Your task to perform on an android device: Turn on the flashlight Image 0: 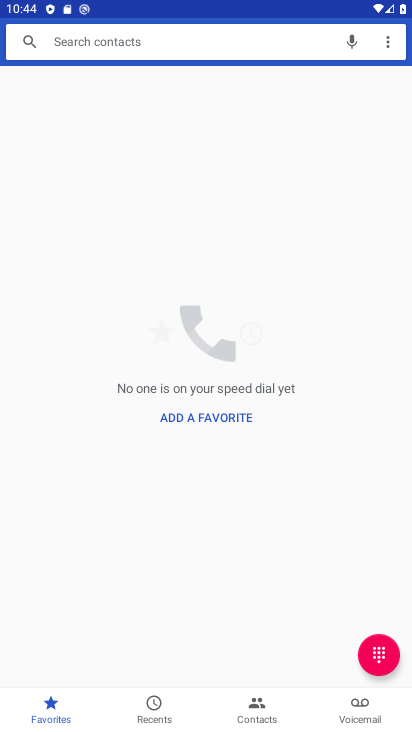
Step 0: press home button
Your task to perform on an android device: Turn on the flashlight Image 1: 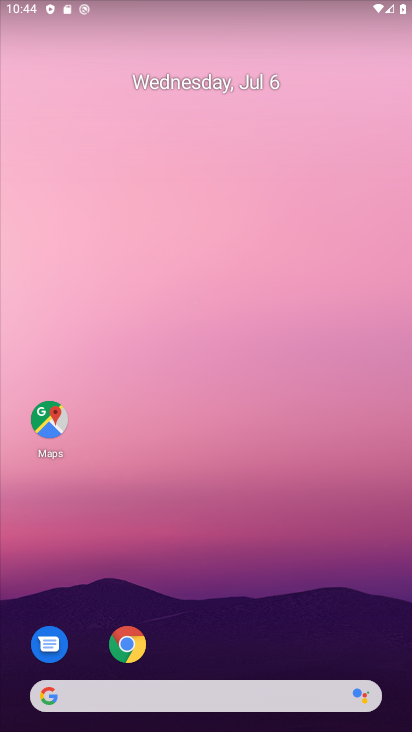
Step 1: drag from (294, 2) to (342, 468)
Your task to perform on an android device: Turn on the flashlight Image 2: 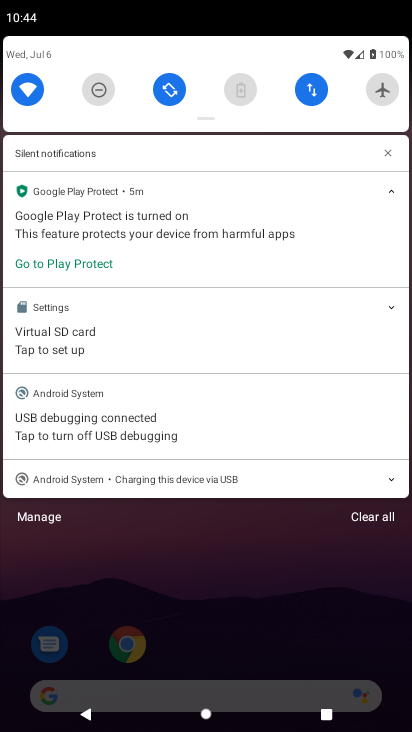
Step 2: drag from (282, 99) to (296, 425)
Your task to perform on an android device: Turn on the flashlight Image 3: 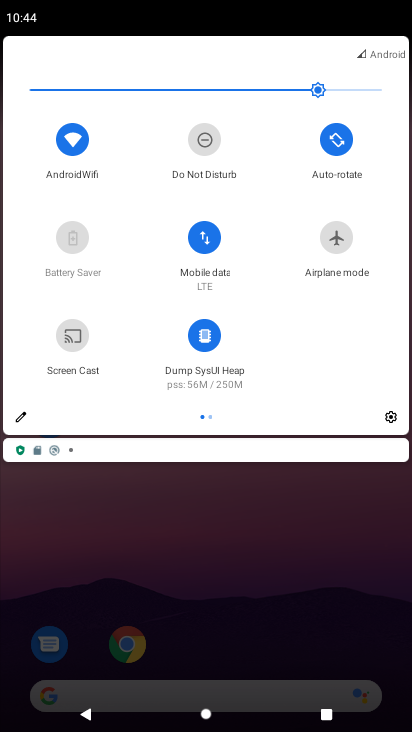
Step 3: drag from (371, 359) to (3, 323)
Your task to perform on an android device: Turn on the flashlight Image 4: 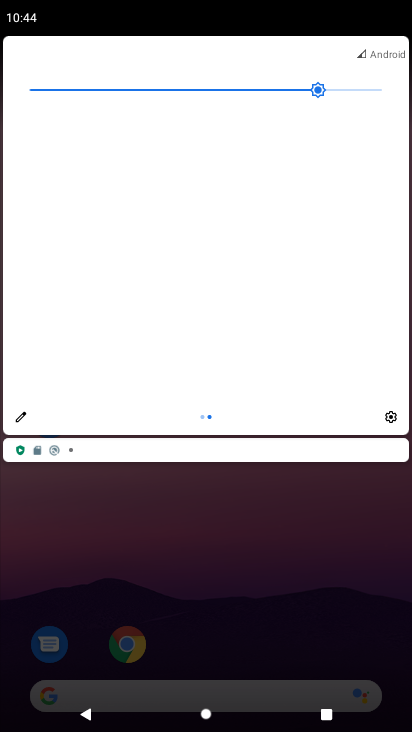
Step 4: click (16, 415)
Your task to perform on an android device: Turn on the flashlight Image 5: 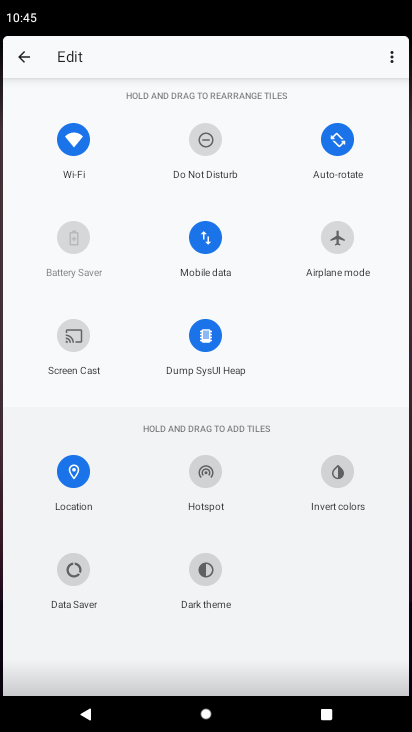
Step 5: task complete